Your task to perform on an android device: set default search engine in the chrome app Image 0: 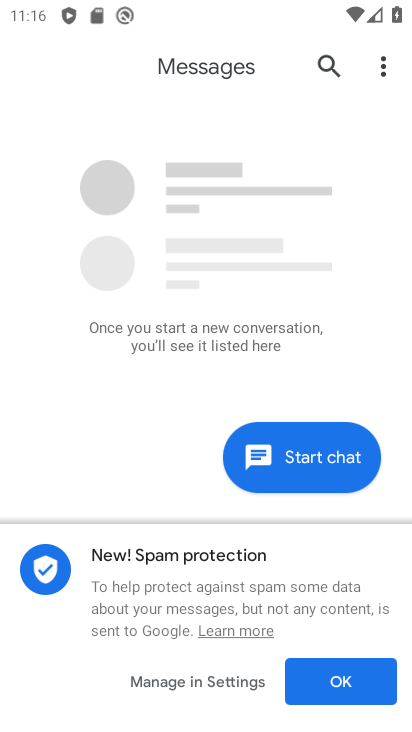
Step 0: press home button
Your task to perform on an android device: set default search engine in the chrome app Image 1: 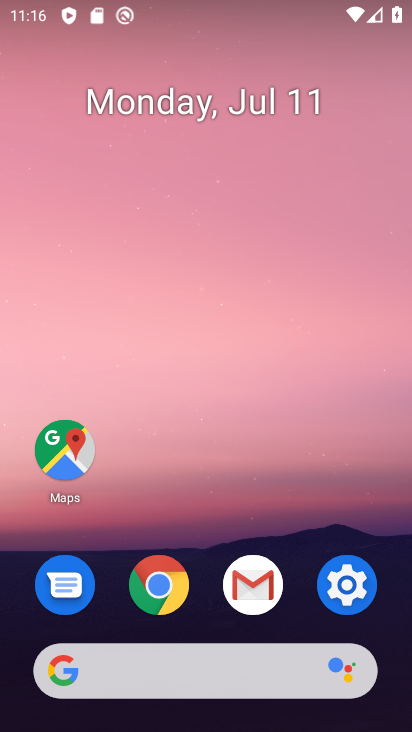
Step 1: click (163, 570)
Your task to perform on an android device: set default search engine in the chrome app Image 2: 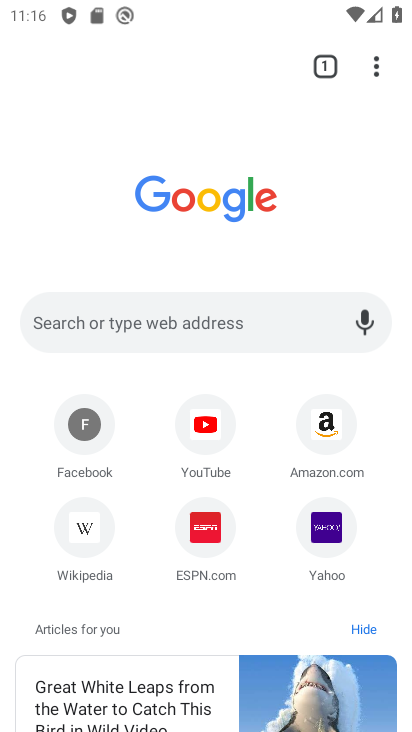
Step 2: click (373, 72)
Your task to perform on an android device: set default search engine in the chrome app Image 3: 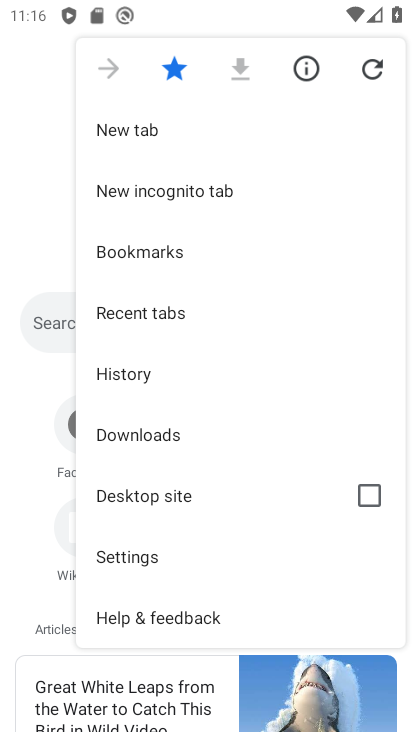
Step 3: click (164, 547)
Your task to perform on an android device: set default search engine in the chrome app Image 4: 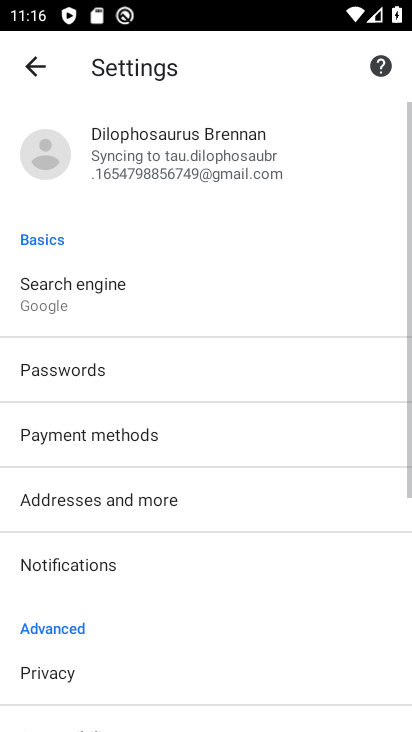
Step 4: click (87, 264)
Your task to perform on an android device: set default search engine in the chrome app Image 5: 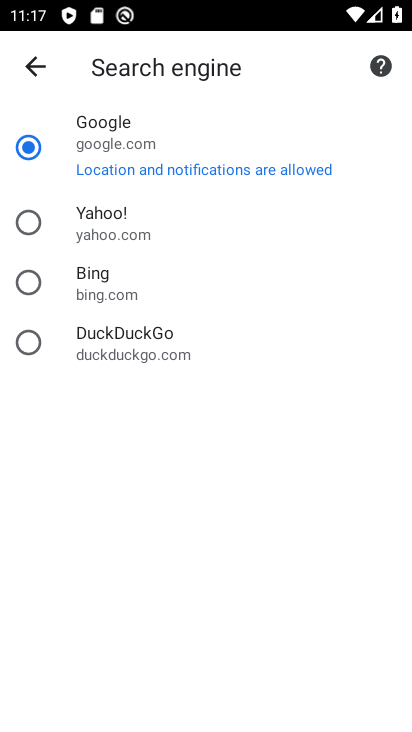
Step 5: task complete